Your task to perform on an android device: What's the weather today? Image 0: 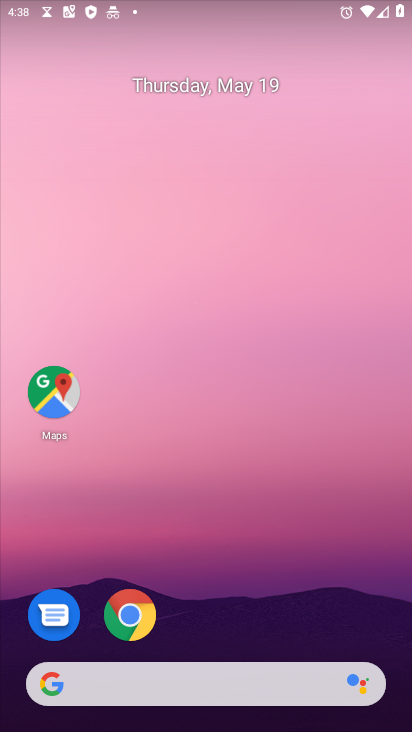
Step 0: drag from (363, 645) to (203, 224)
Your task to perform on an android device: What's the weather today? Image 1: 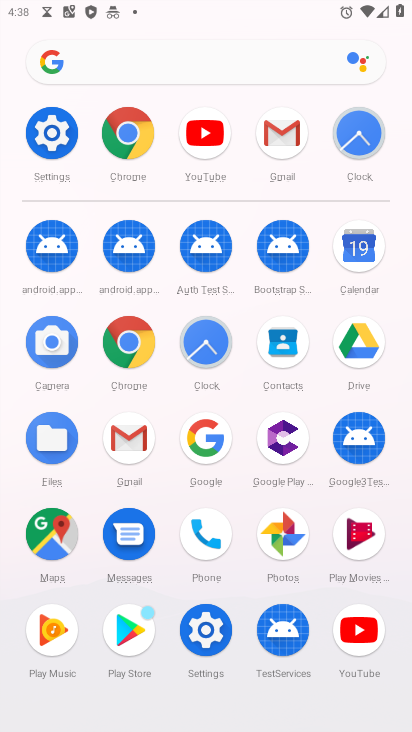
Step 1: drag from (21, 239) to (375, 325)
Your task to perform on an android device: What's the weather today? Image 2: 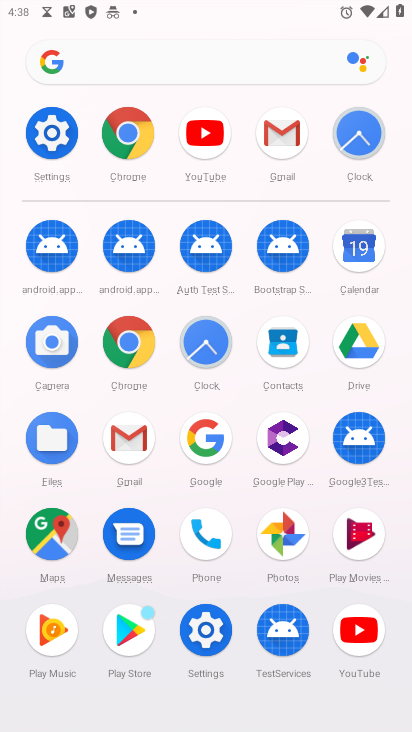
Step 2: press back button
Your task to perform on an android device: What's the weather today? Image 3: 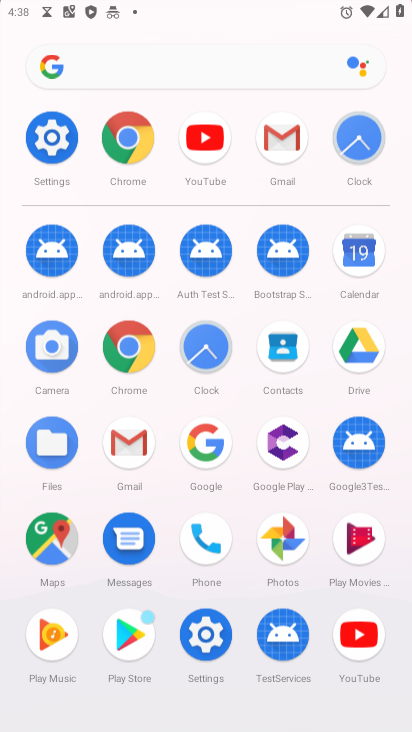
Step 3: press back button
Your task to perform on an android device: What's the weather today? Image 4: 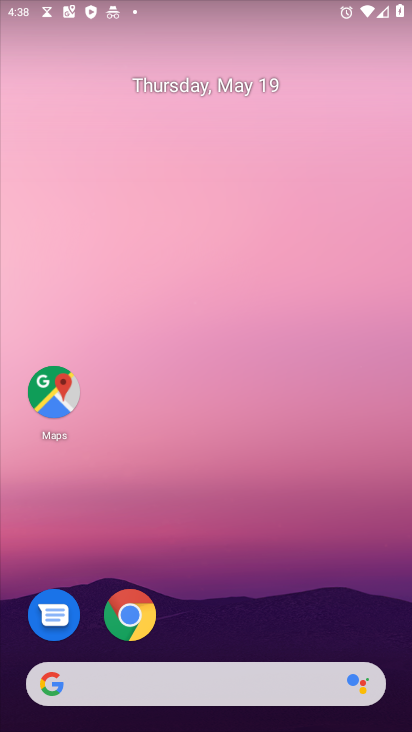
Step 4: press back button
Your task to perform on an android device: What's the weather today? Image 5: 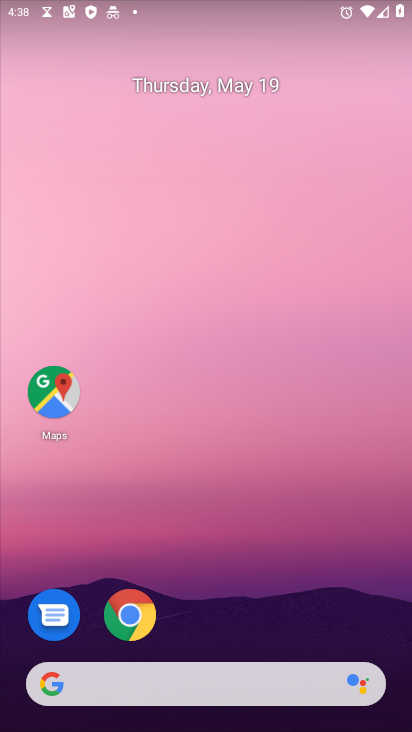
Step 5: drag from (396, 390) to (341, 346)
Your task to perform on an android device: What's the weather today? Image 6: 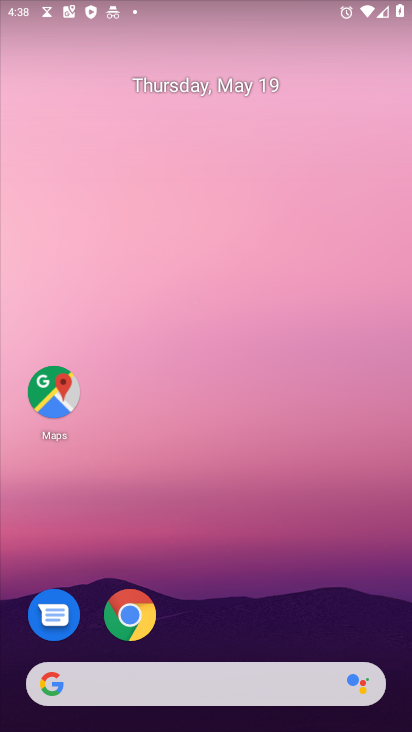
Step 6: drag from (14, 279) to (301, 443)
Your task to perform on an android device: What's the weather today? Image 7: 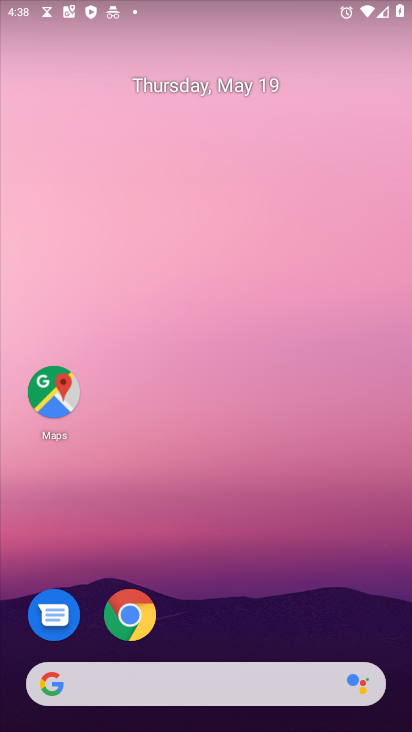
Step 7: drag from (26, 265) to (327, 468)
Your task to perform on an android device: What's the weather today? Image 8: 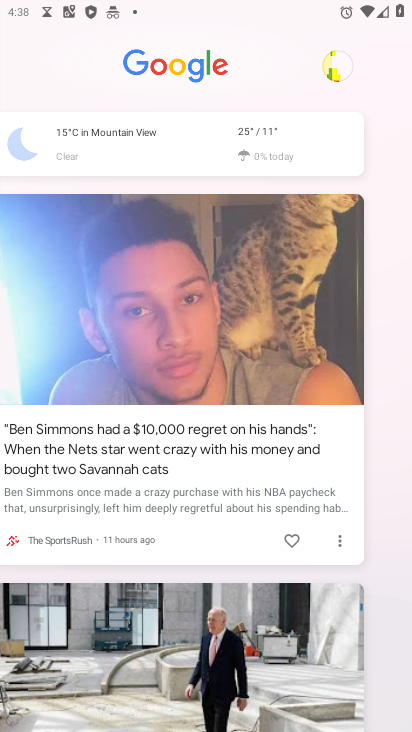
Step 8: drag from (398, 480) to (368, 497)
Your task to perform on an android device: What's the weather today? Image 9: 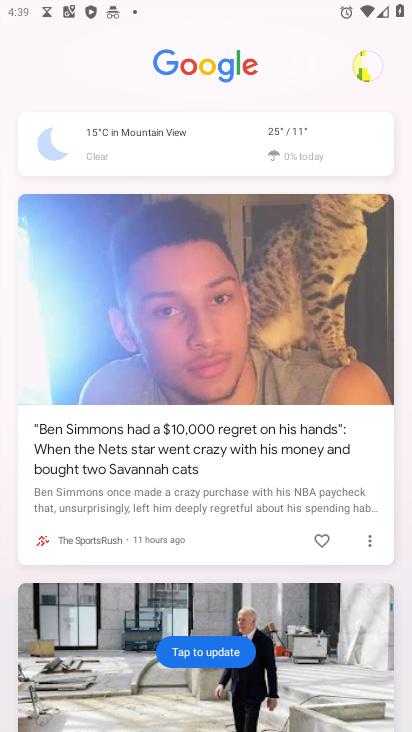
Step 9: click (171, 151)
Your task to perform on an android device: What's the weather today? Image 10: 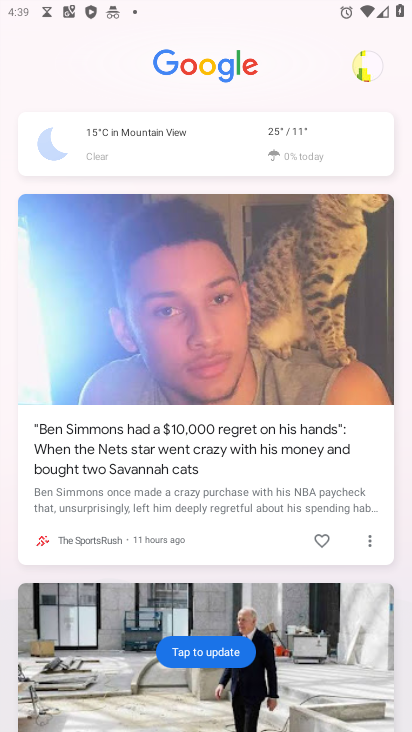
Step 10: click (172, 151)
Your task to perform on an android device: What's the weather today? Image 11: 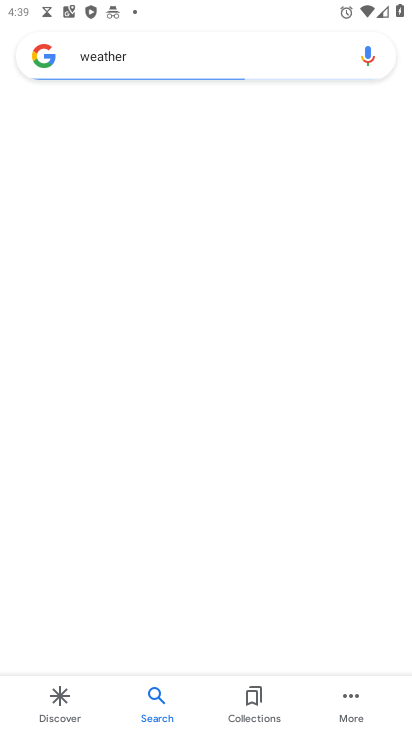
Step 11: click (173, 151)
Your task to perform on an android device: What's the weather today? Image 12: 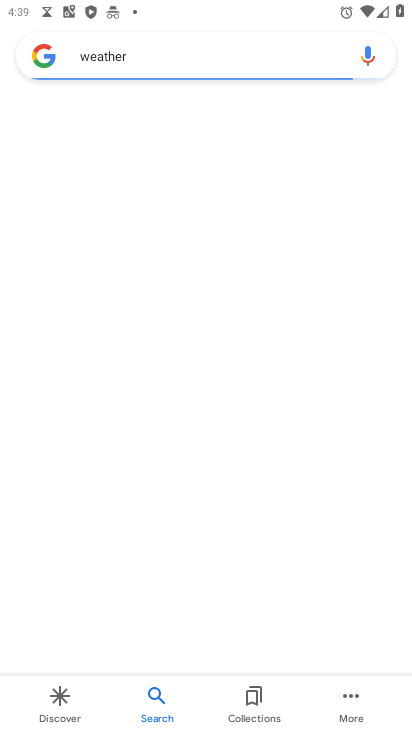
Step 12: click (179, 151)
Your task to perform on an android device: What's the weather today? Image 13: 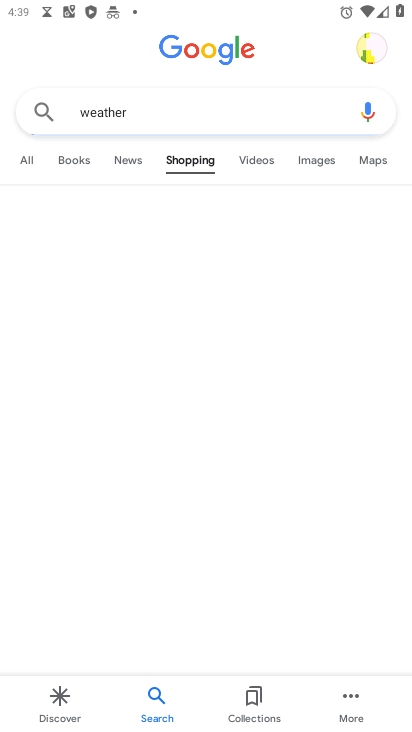
Step 13: click (182, 151)
Your task to perform on an android device: What's the weather today? Image 14: 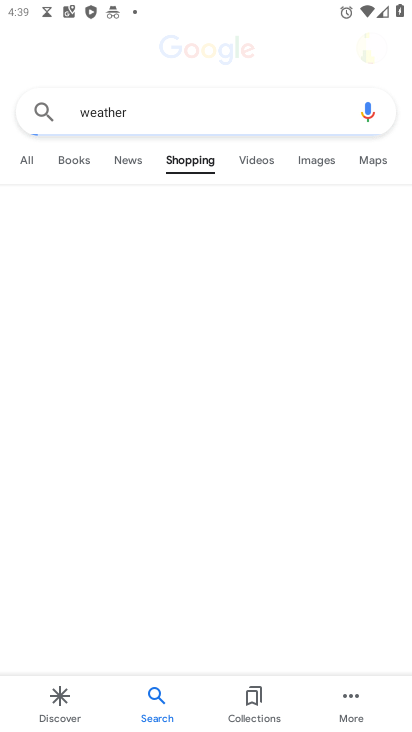
Step 14: click (182, 151)
Your task to perform on an android device: What's the weather today? Image 15: 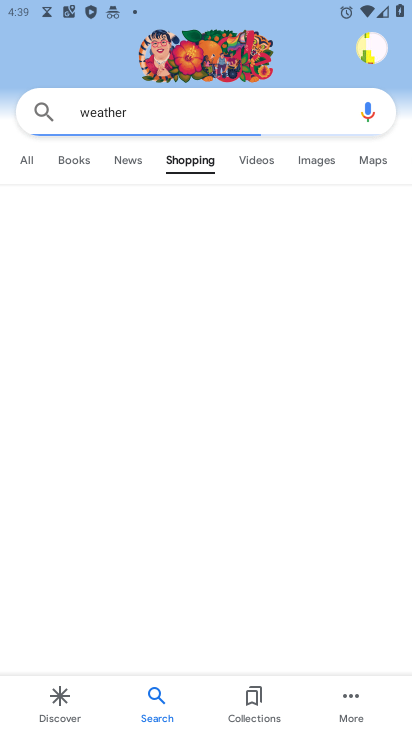
Step 15: drag from (181, 417) to (381, 427)
Your task to perform on an android device: What's the weather today? Image 16: 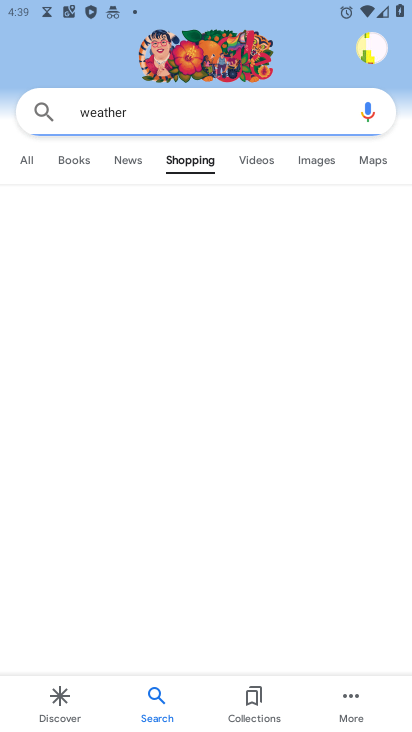
Step 16: drag from (86, 238) to (402, 362)
Your task to perform on an android device: What's the weather today? Image 17: 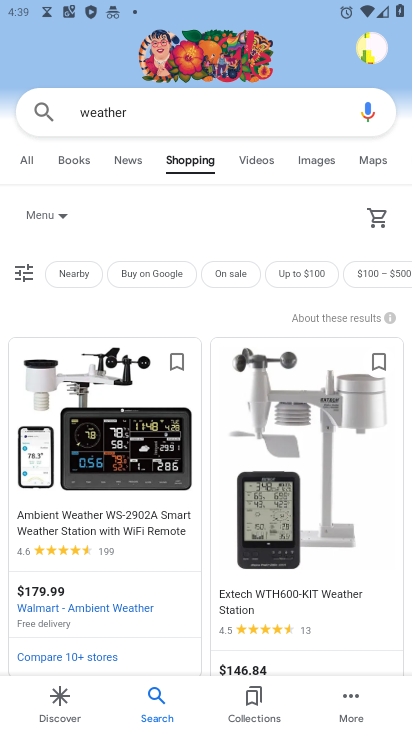
Step 17: drag from (237, 333) to (347, 374)
Your task to perform on an android device: What's the weather today? Image 18: 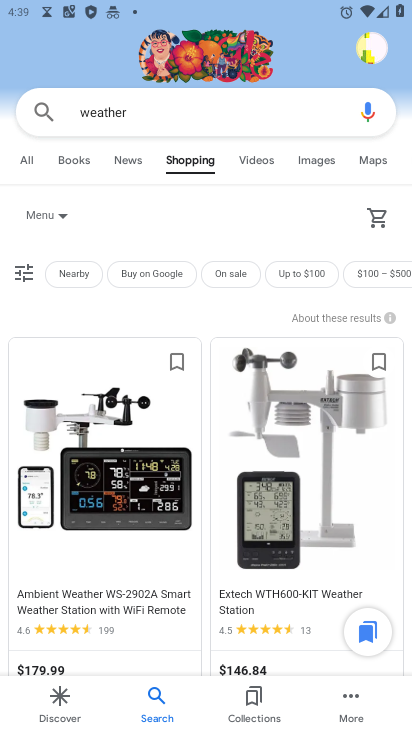
Step 18: drag from (9, 266) to (386, 389)
Your task to perform on an android device: What's the weather today? Image 19: 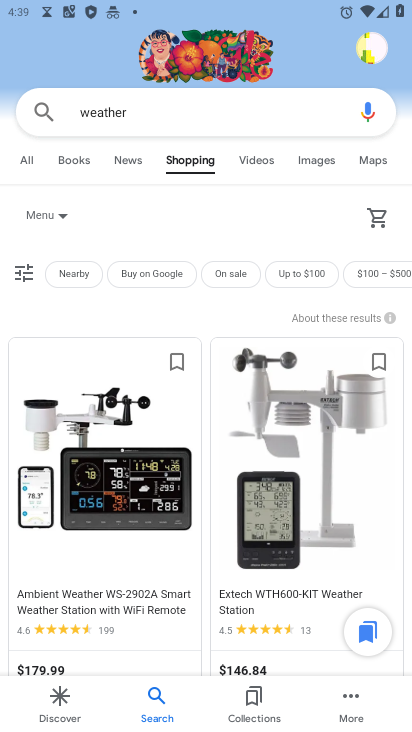
Step 19: drag from (363, 427) to (344, 299)
Your task to perform on an android device: What's the weather today? Image 20: 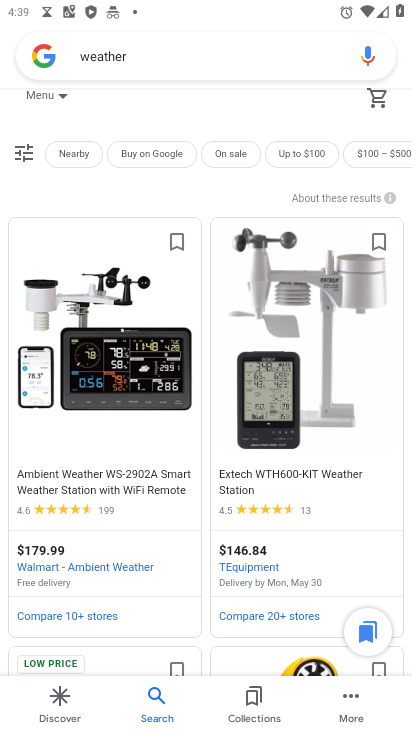
Step 20: click (135, 52)
Your task to perform on an android device: What's the weather today? Image 21: 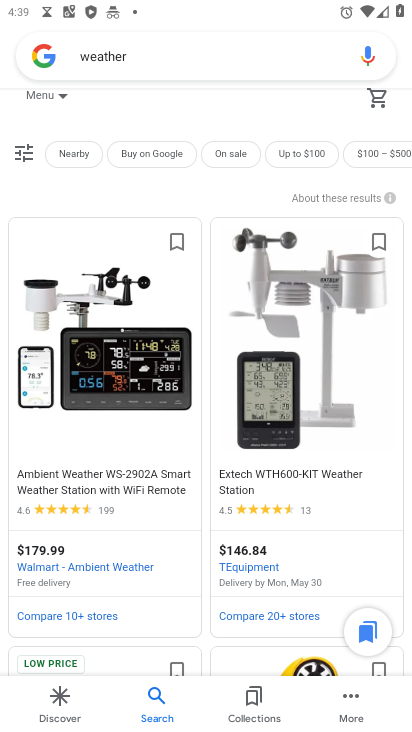
Step 21: click (135, 52)
Your task to perform on an android device: What's the weather today? Image 22: 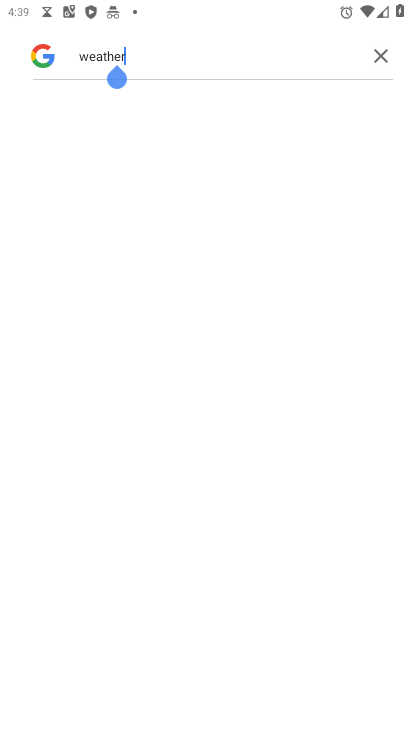
Step 22: click (136, 52)
Your task to perform on an android device: What's the weather today? Image 23: 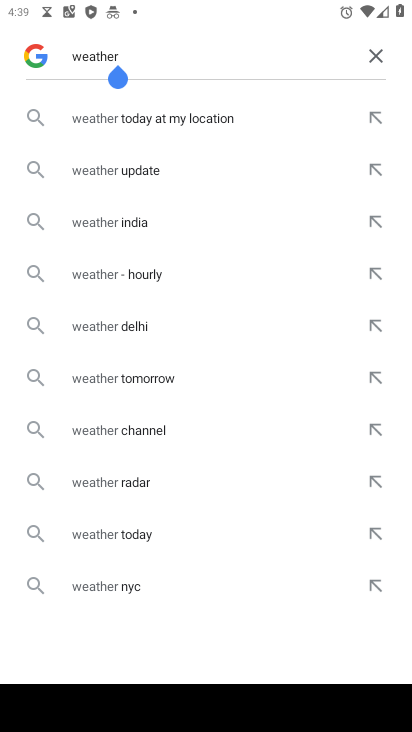
Step 23: click (135, 52)
Your task to perform on an android device: What's the weather today? Image 24: 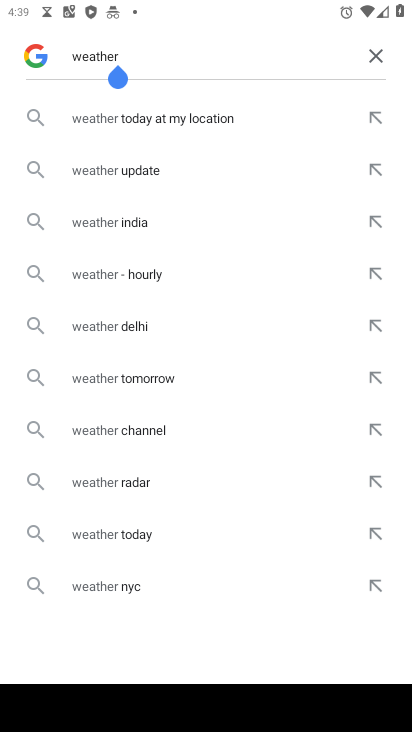
Step 24: click (135, 52)
Your task to perform on an android device: What's the weather today? Image 25: 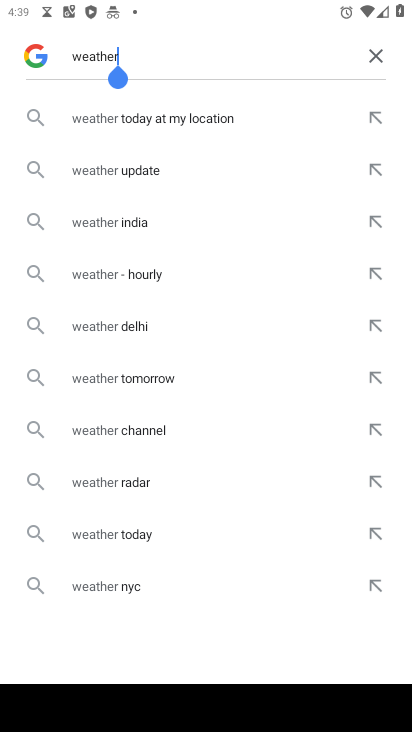
Step 25: click (225, 112)
Your task to perform on an android device: What's the weather today? Image 26: 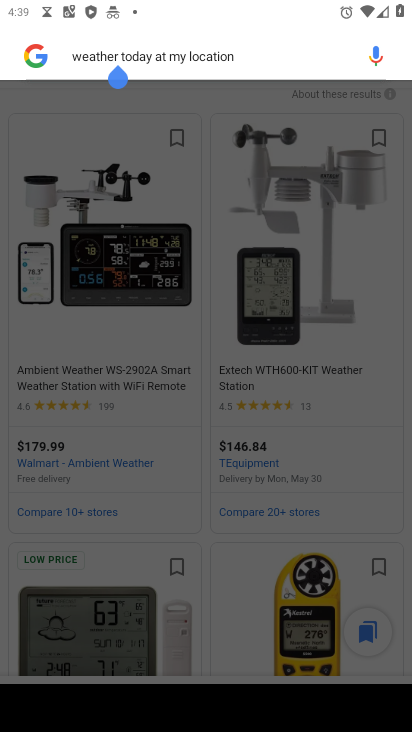
Step 26: click (226, 113)
Your task to perform on an android device: What's the weather today? Image 27: 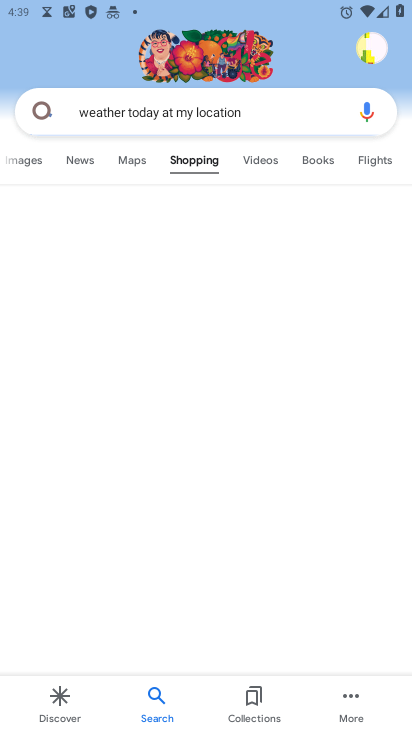
Step 27: click (226, 113)
Your task to perform on an android device: What's the weather today? Image 28: 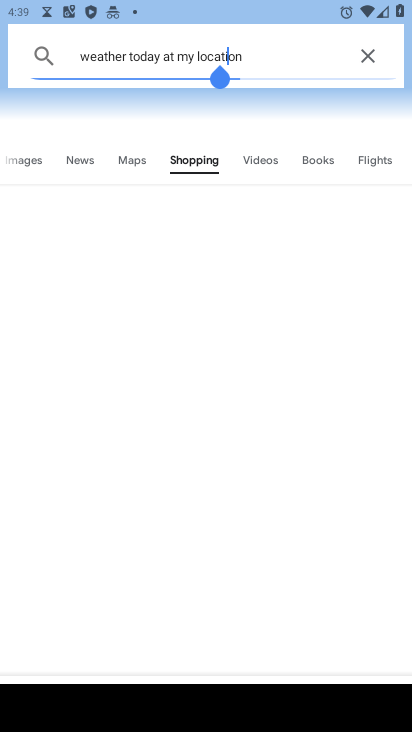
Step 28: click (227, 113)
Your task to perform on an android device: What's the weather today? Image 29: 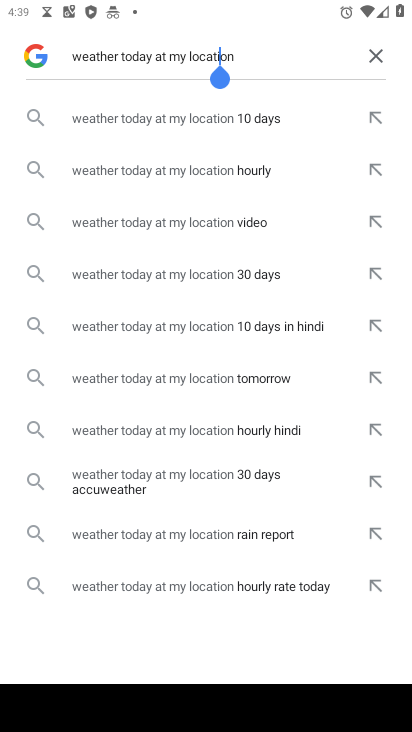
Step 29: task complete